Your task to perform on an android device: Open Google Chrome Image 0: 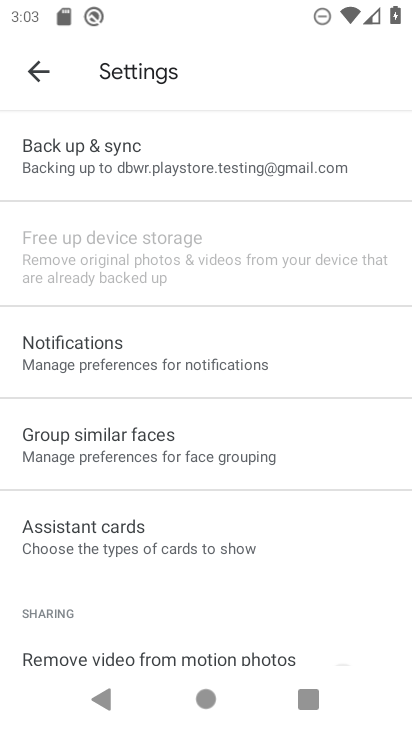
Step 0: press home button
Your task to perform on an android device: Open Google Chrome Image 1: 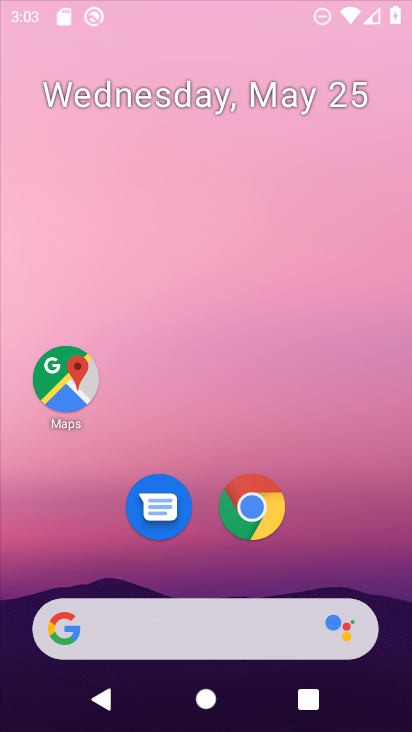
Step 1: drag from (214, 683) to (312, 197)
Your task to perform on an android device: Open Google Chrome Image 2: 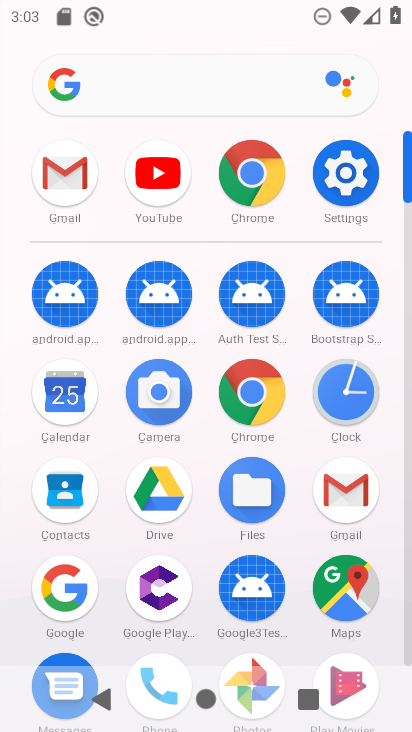
Step 2: click (265, 204)
Your task to perform on an android device: Open Google Chrome Image 3: 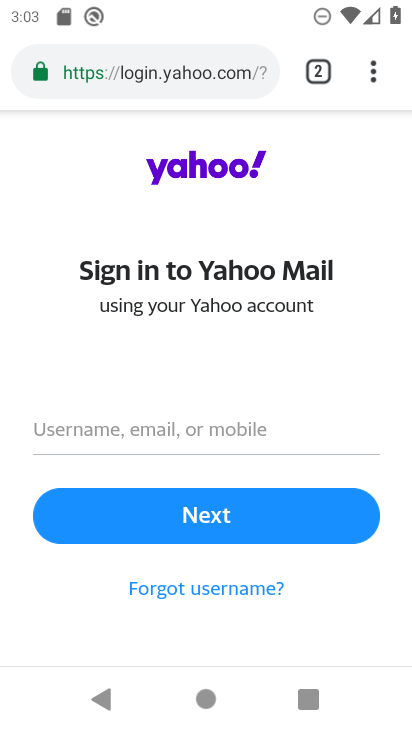
Step 3: task complete